Your task to perform on an android device: create a new album in the google photos Image 0: 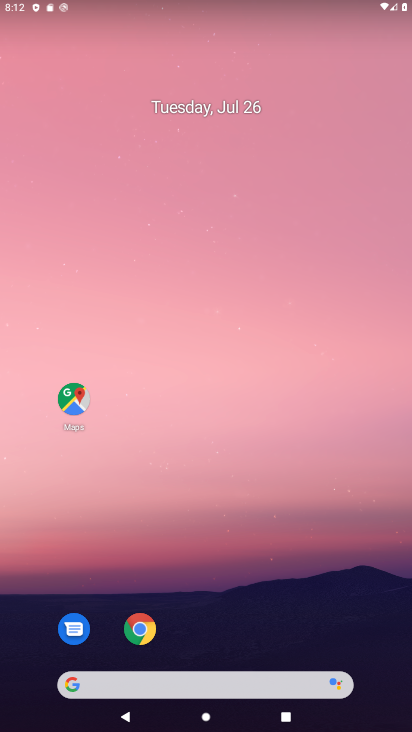
Step 0: drag from (223, 651) to (401, 17)
Your task to perform on an android device: create a new album in the google photos Image 1: 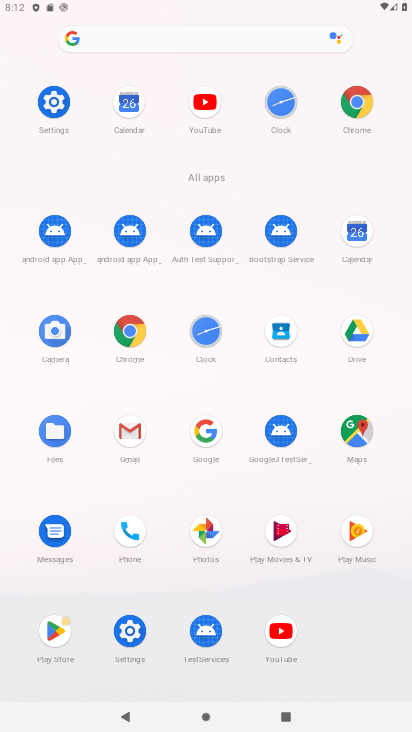
Step 1: click (201, 525)
Your task to perform on an android device: create a new album in the google photos Image 2: 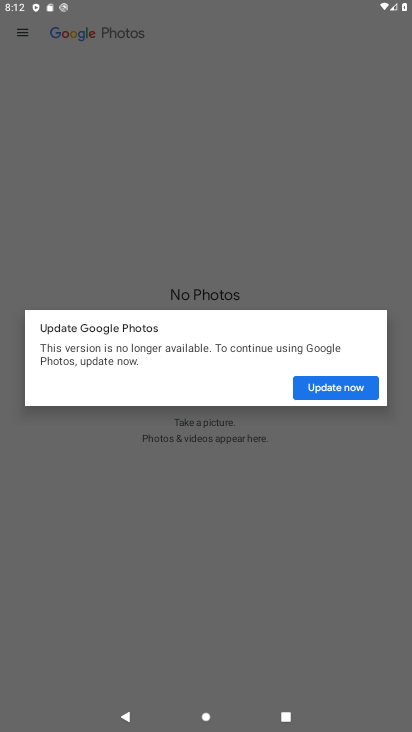
Step 2: click (326, 382)
Your task to perform on an android device: create a new album in the google photos Image 3: 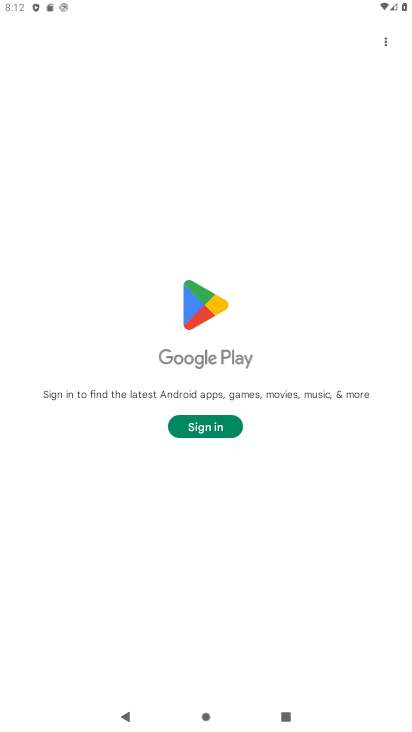
Step 3: task complete